Your task to perform on an android device: Open ESPN.com Image 0: 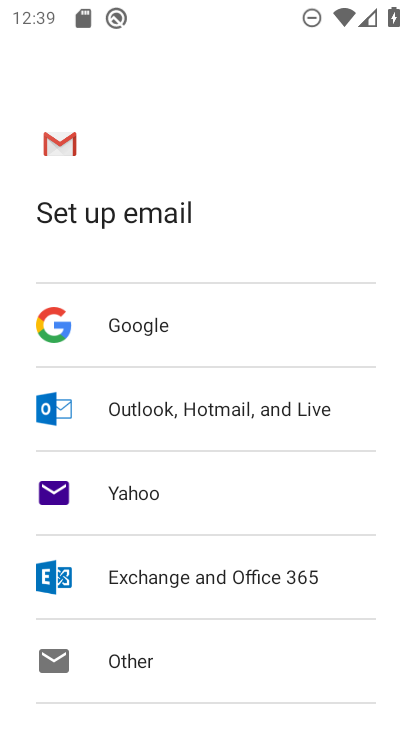
Step 0: press home button
Your task to perform on an android device: Open ESPN.com Image 1: 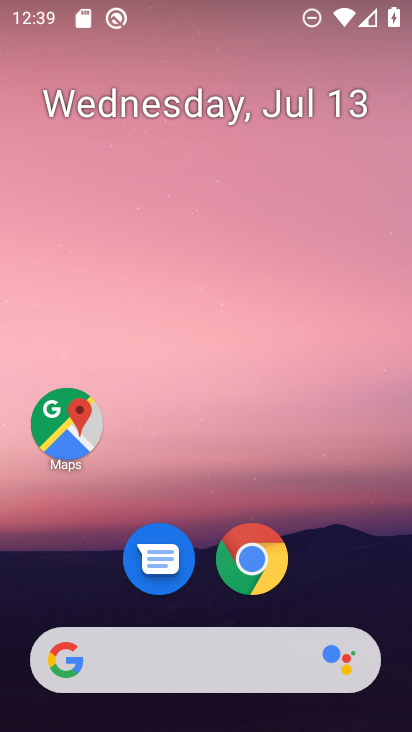
Step 1: drag from (205, 667) to (249, 313)
Your task to perform on an android device: Open ESPN.com Image 2: 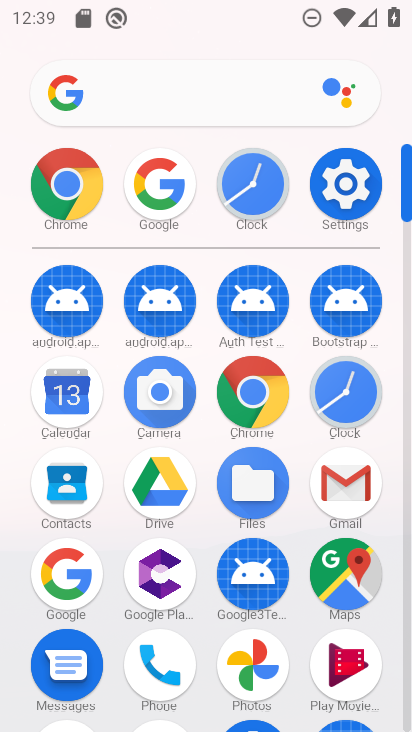
Step 2: click (243, 408)
Your task to perform on an android device: Open ESPN.com Image 3: 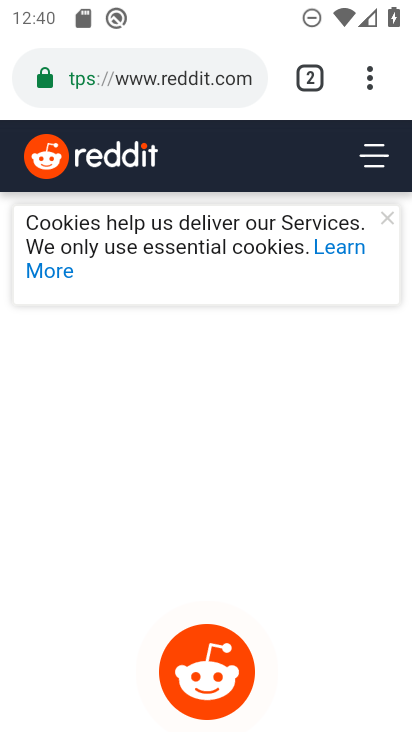
Step 3: click (167, 100)
Your task to perform on an android device: Open ESPN.com Image 4: 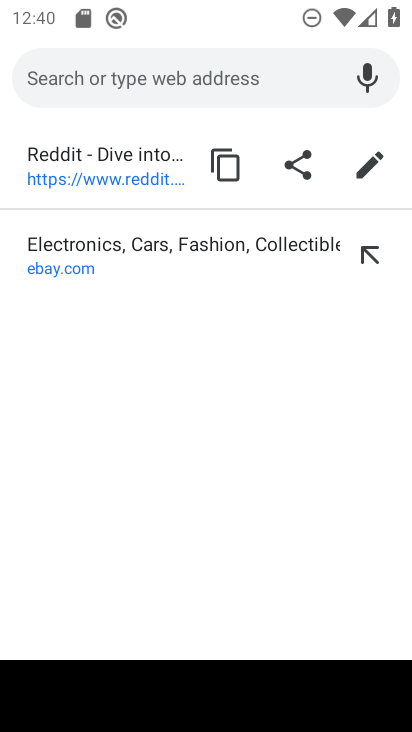
Step 4: type "espn"
Your task to perform on an android device: Open ESPN.com Image 5: 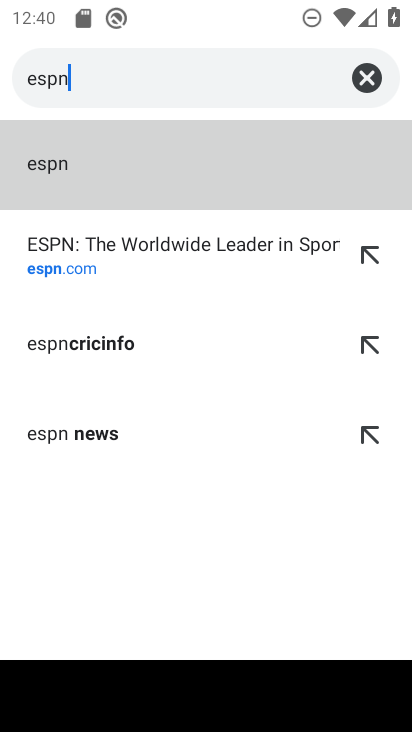
Step 5: click (170, 263)
Your task to perform on an android device: Open ESPN.com Image 6: 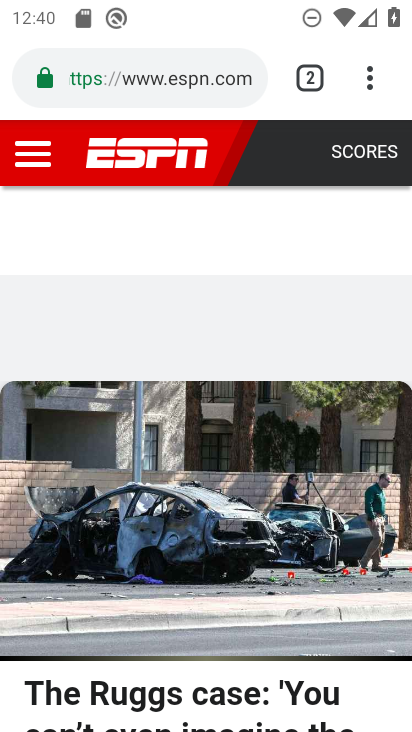
Step 6: task complete